Your task to perform on an android device: turn pop-ups off in chrome Image 0: 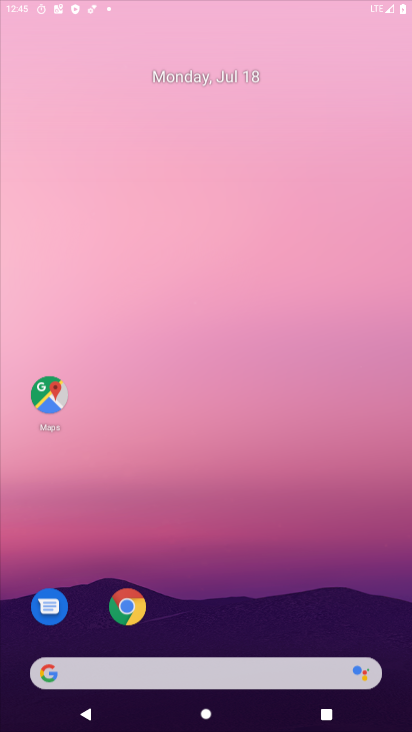
Step 0: click (220, 60)
Your task to perform on an android device: turn pop-ups off in chrome Image 1: 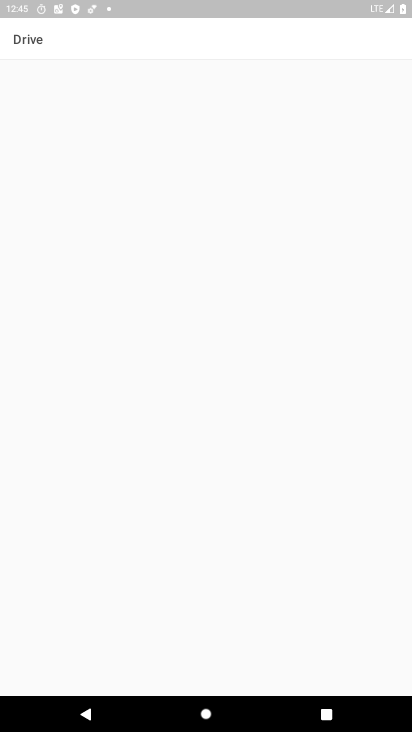
Step 1: drag from (274, 672) to (265, 194)
Your task to perform on an android device: turn pop-ups off in chrome Image 2: 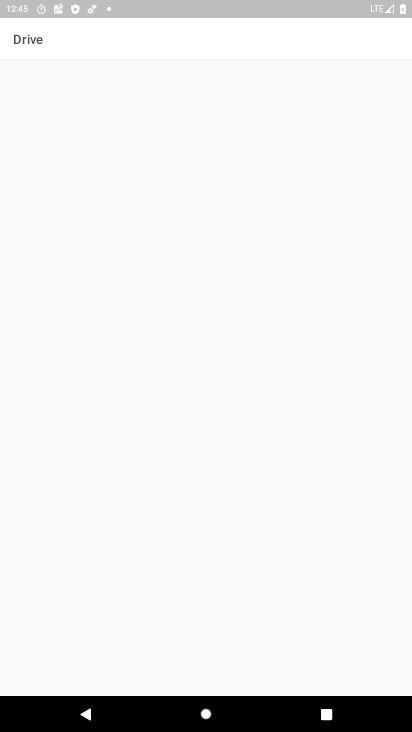
Step 2: press home button
Your task to perform on an android device: turn pop-ups off in chrome Image 3: 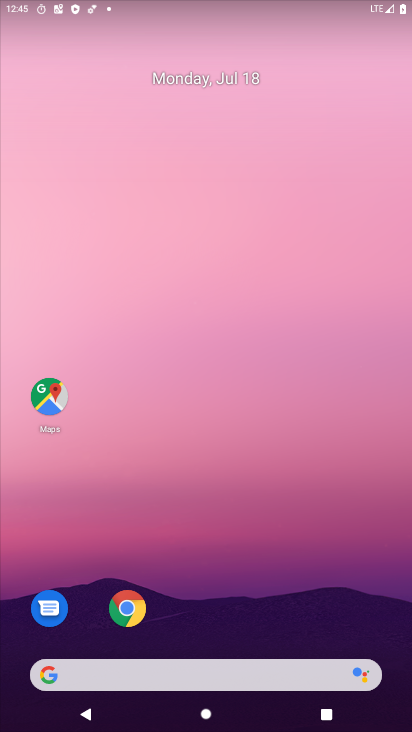
Step 3: drag from (260, 616) to (269, 0)
Your task to perform on an android device: turn pop-ups off in chrome Image 4: 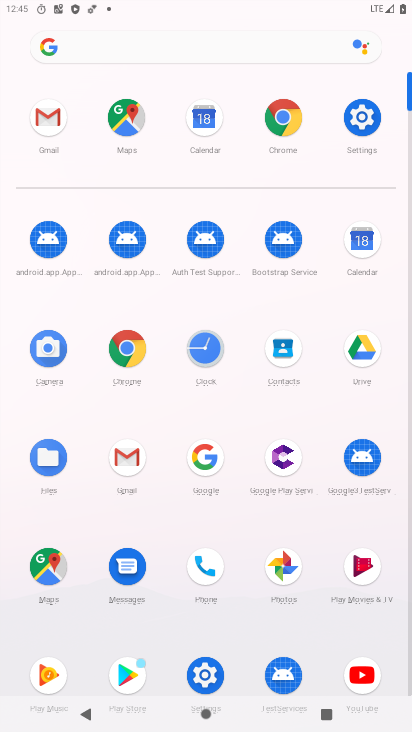
Step 4: click (290, 133)
Your task to perform on an android device: turn pop-ups off in chrome Image 5: 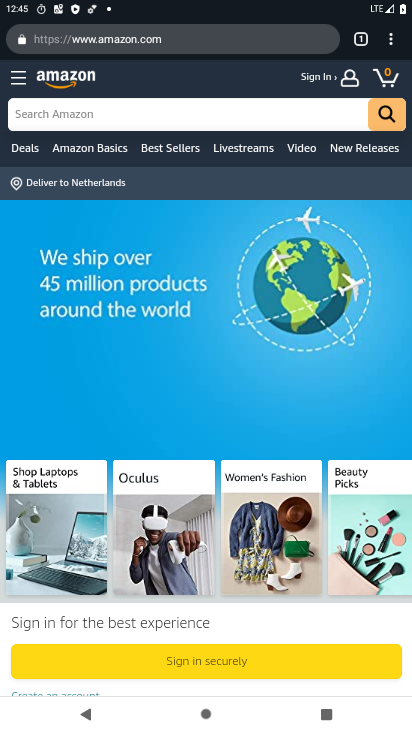
Step 5: drag from (403, 52) to (300, 457)
Your task to perform on an android device: turn pop-ups off in chrome Image 6: 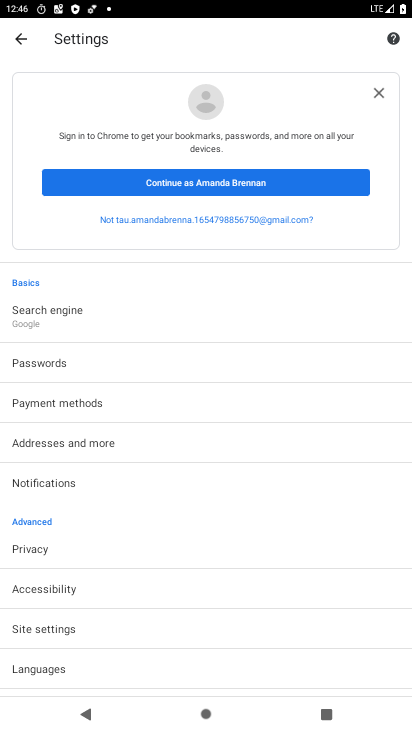
Step 6: drag from (138, 672) to (198, 240)
Your task to perform on an android device: turn pop-ups off in chrome Image 7: 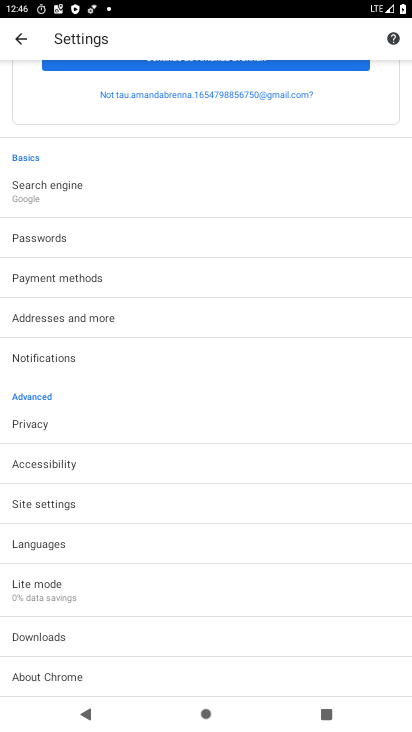
Step 7: click (34, 509)
Your task to perform on an android device: turn pop-ups off in chrome Image 8: 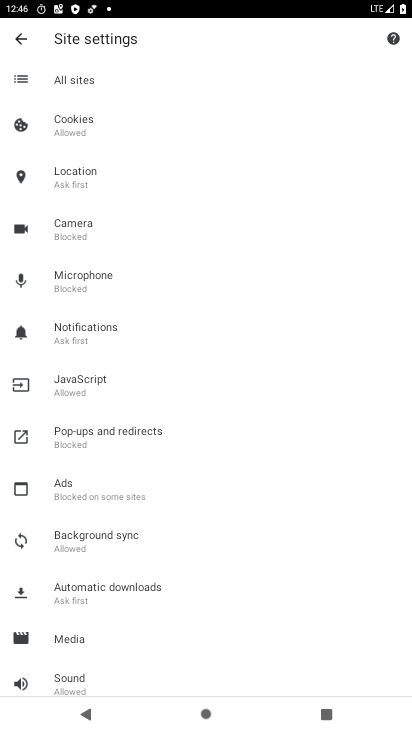
Step 8: click (93, 453)
Your task to perform on an android device: turn pop-ups off in chrome Image 9: 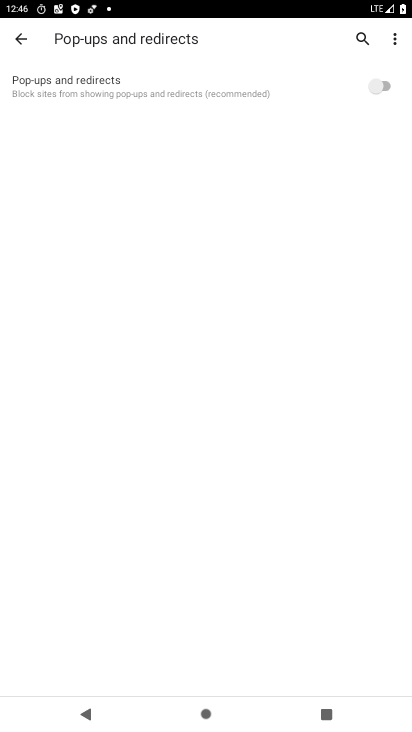
Step 9: task complete